Your task to perform on an android device: see tabs open on other devices in the chrome app Image 0: 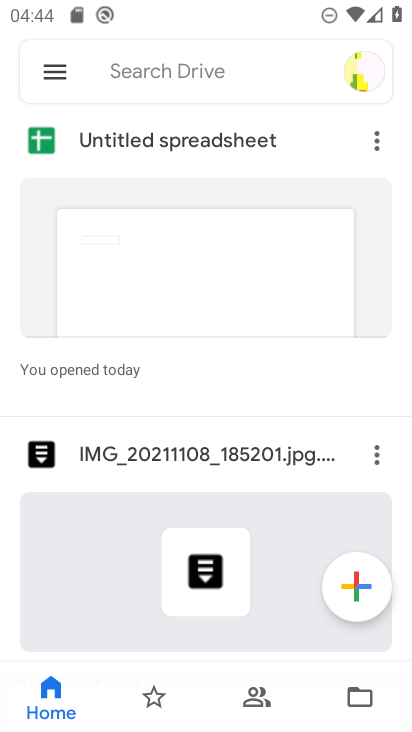
Step 0: press home button
Your task to perform on an android device: see tabs open on other devices in the chrome app Image 1: 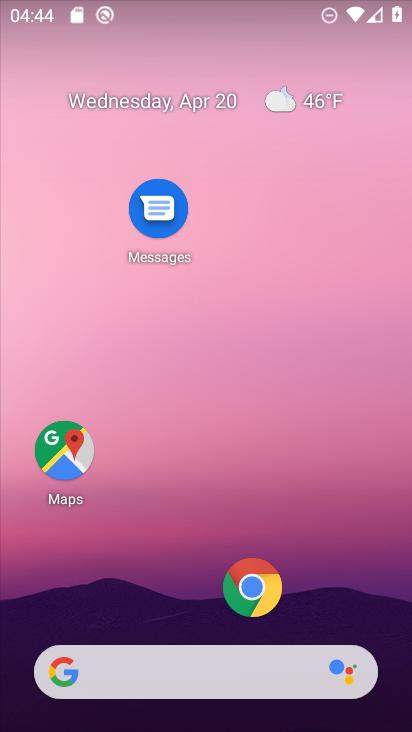
Step 1: click (243, 575)
Your task to perform on an android device: see tabs open on other devices in the chrome app Image 2: 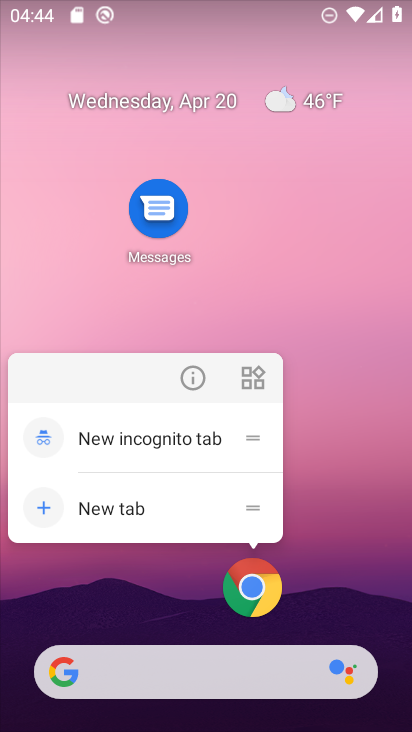
Step 2: click (229, 561)
Your task to perform on an android device: see tabs open on other devices in the chrome app Image 3: 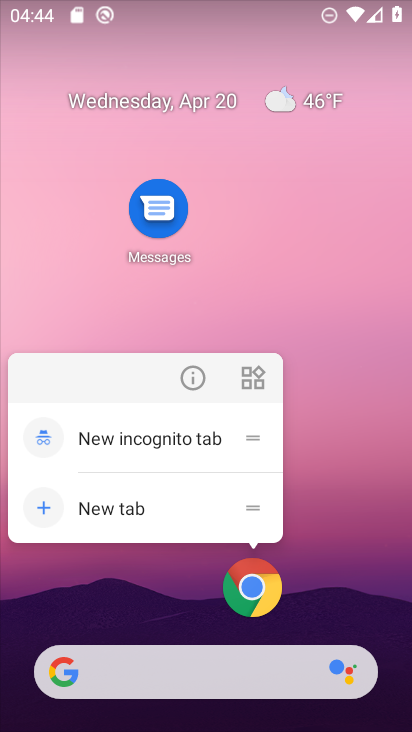
Step 3: click (256, 585)
Your task to perform on an android device: see tabs open on other devices in the chrome app Image 4: 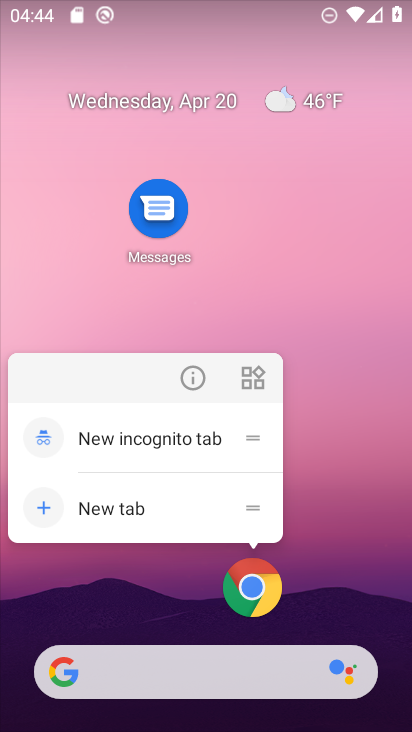
Step 4: click (253, 593)
Your task to perform on an android device: see tabs open on other devices in the chrome app Image 5: 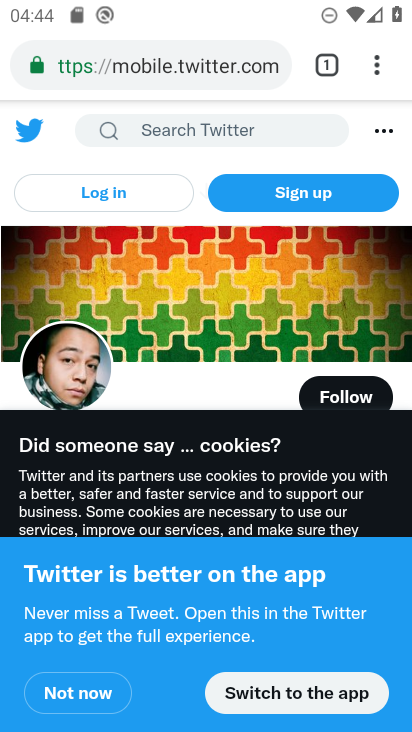
Step 5: click (378, 72)
Your task to perform on an android device: see tabs open on other devices in the chrome app Image 6: 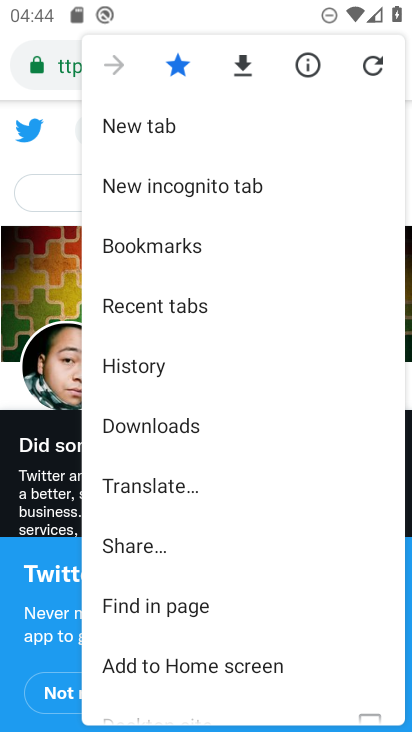
Step 6: click (187, 306)
Your task to perform on an android device: see tabs open on other devices in the chrome app Image 7: 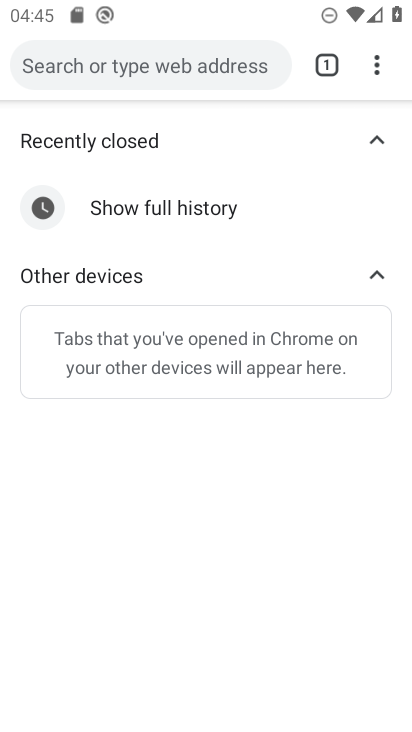
Step 7: task complete